Your task to perform on an android device: What's the weather? Image 0: 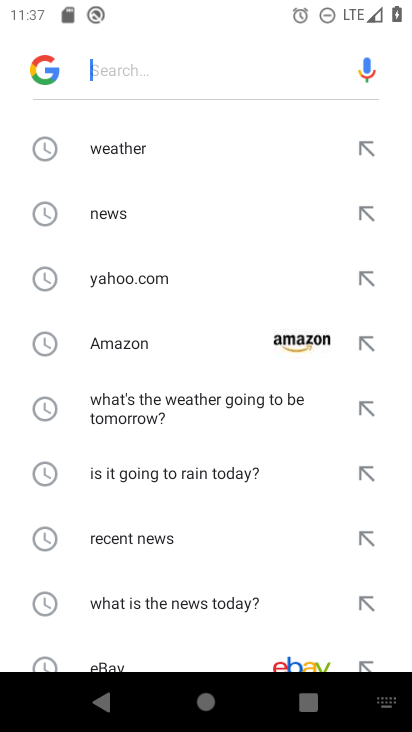
Step 0: press home button
Your task to perform on an android device: What's the weather? Image 1: 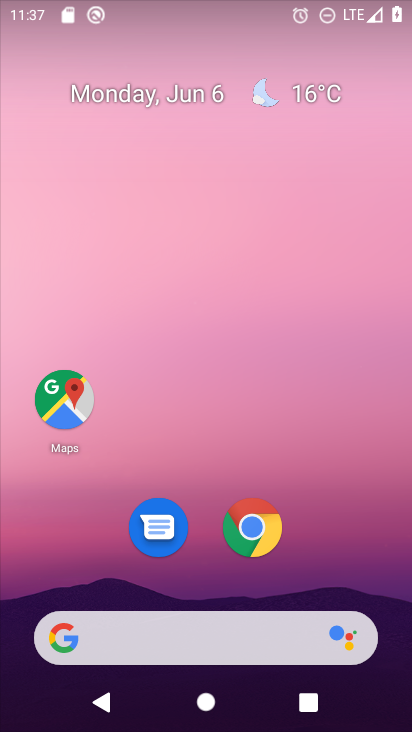
Step 1: drag from (367, 556) to (327, 188)
Your task to perform on an android device: What's the weather? Image 2: 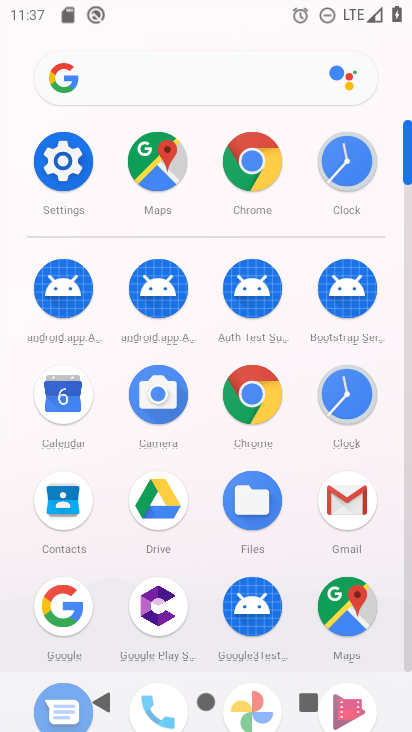
Step 2: click (234, 79)
Your task to perform on an android device: What's the weather? Image 3: 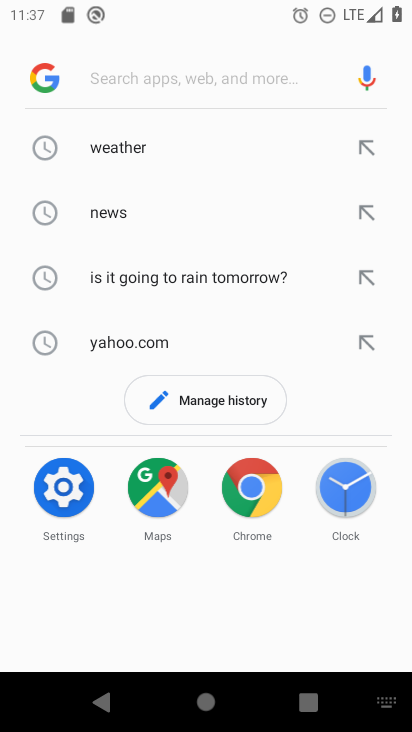
Step 3: click (134, 157)
Your task to perform on an android device: What's the weather? Image 4: 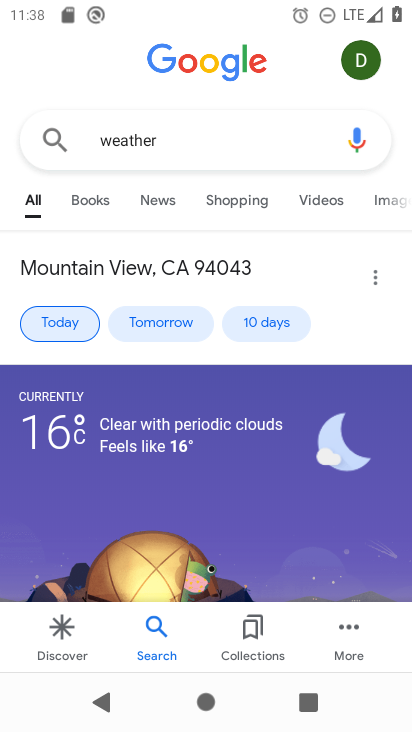
Step 4: task complete